Your task to perform on an android device: Open CNN.com Image 0: 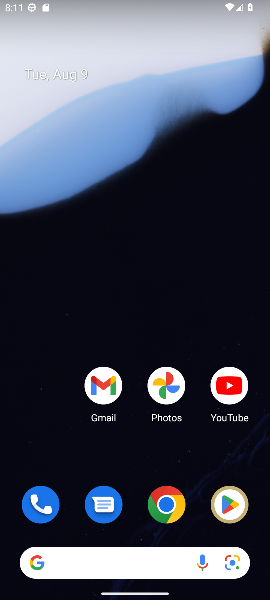
Step 0: click (168, 496)
Your task to perform on an android device: Open CNN.com Image 1: 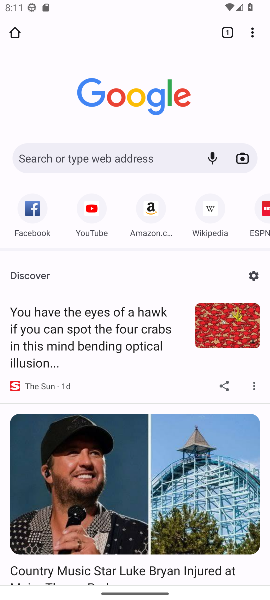
Step 1: click (148, 158)
Your task to perform on an android device: Open CNN.com Image 2: 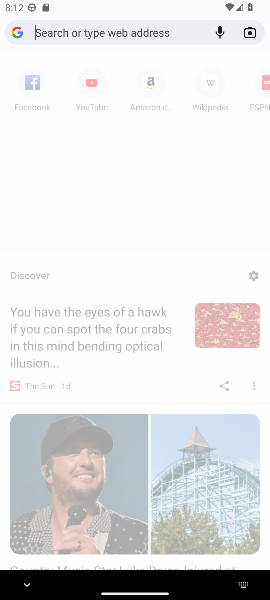
Step 2: type "cnn.com"
Your task to perform on an android device: Open CNN.com Image 3: 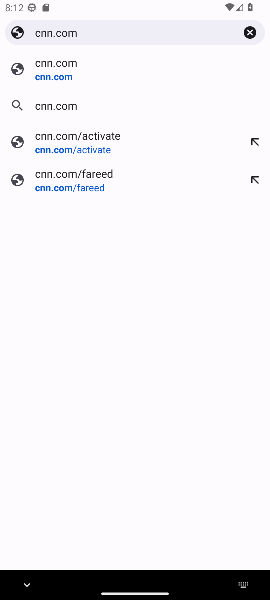
Step 3: click (57, 62)
Your task to perform on an android device: Open CNN.com Image 4: 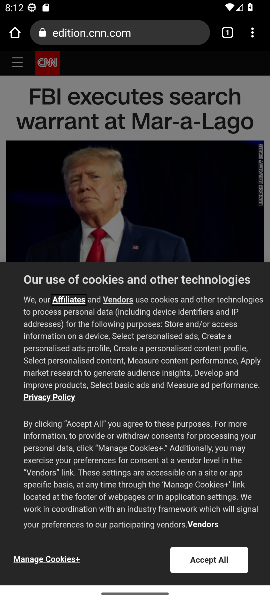
Step 4: click (202, 556)
Your task to perform on an android device: Open CNN.com Image 5: 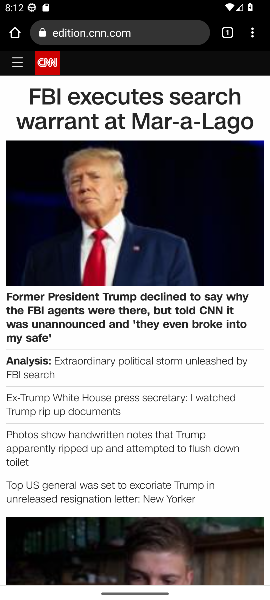
Step 5: task complete